Your task to perform on an android device: Open Wikipedia Image 0: 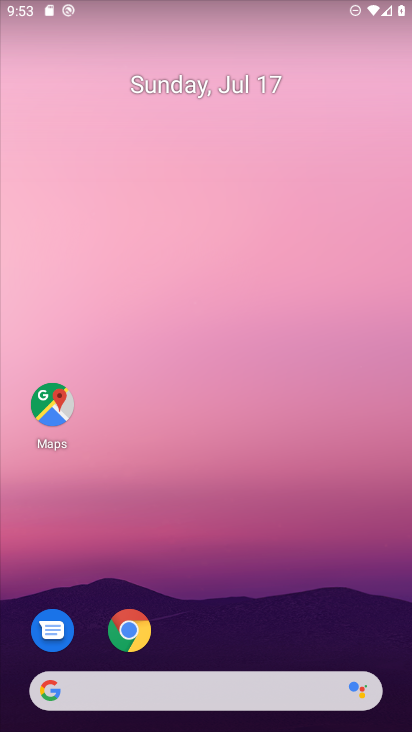
Step 0: drag from (223, 504) to (250, 35)
Your task to perform on an android device: Open Wikipedia Image 1: 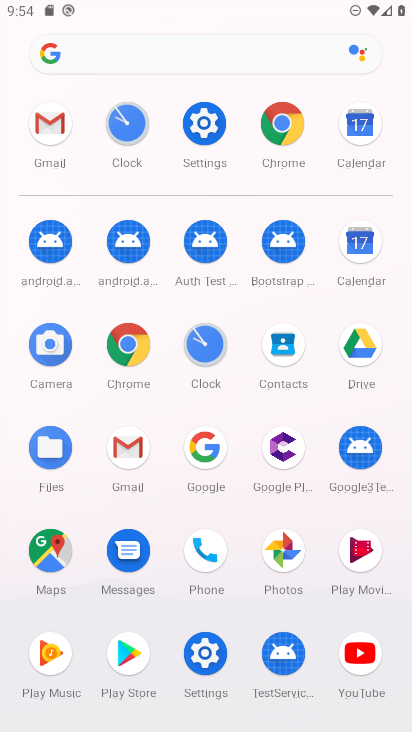
Step 1: click (271, 138)
Your task to perform on an android device: Open Wikipedia Image 2: 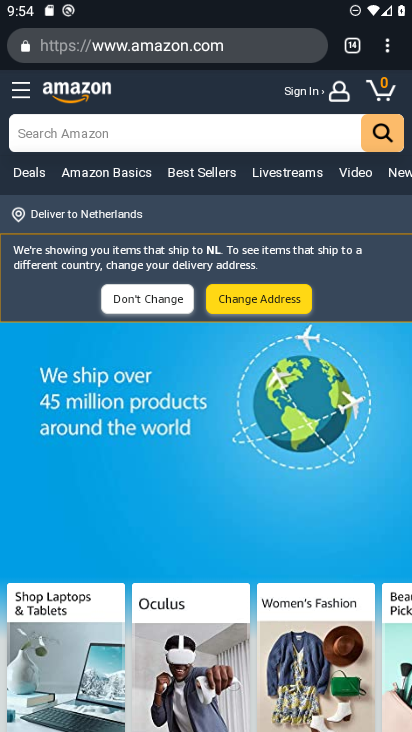
Step 2: click (394, 47)
Your task to perform on an android device: Open Wikipedia Image 3: 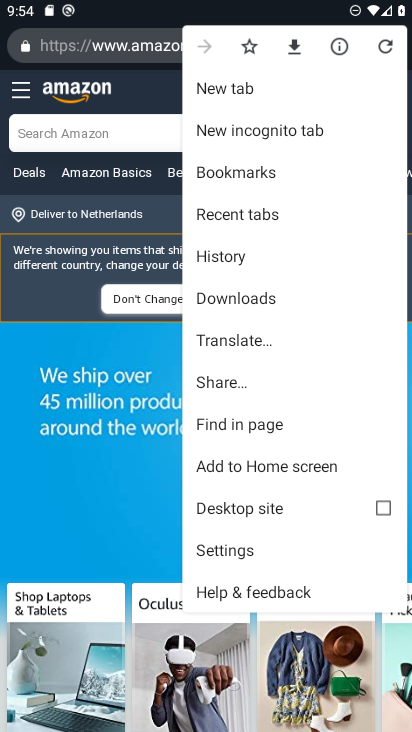
Step 3: click (255, 89)
Your task to perform on an android device: Open Wikipedia Image 4: 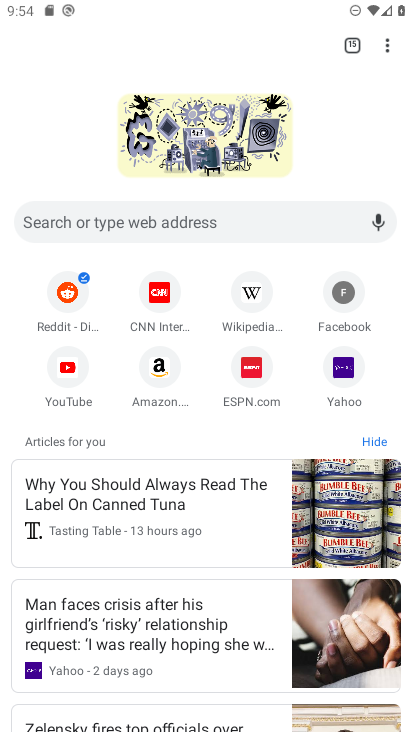
Step 4: click (243, 283)
Your task to perform on an android device: Open Wikipedia Image 5: 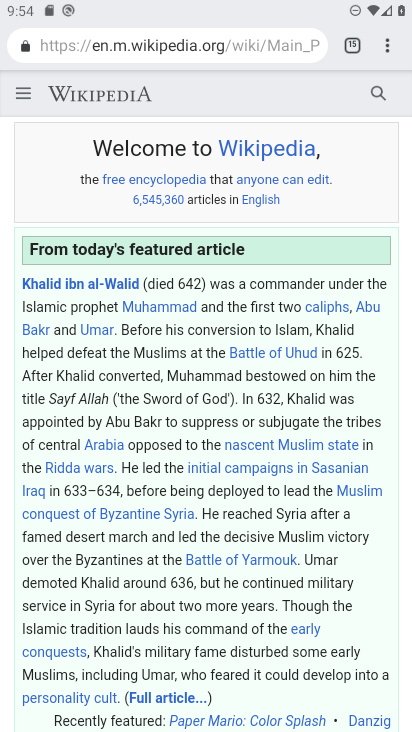
Step 5: task complete